Your task to perform on an android device: turn on location history Image 0: 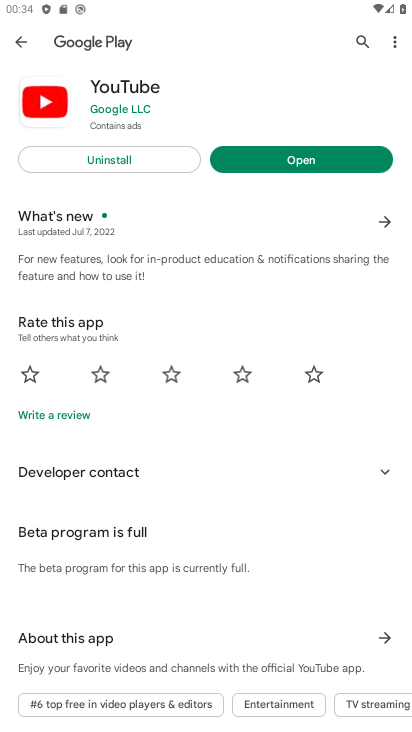
Step 0: press home button
Your task to perform on an android device: turn on location history Image 1: 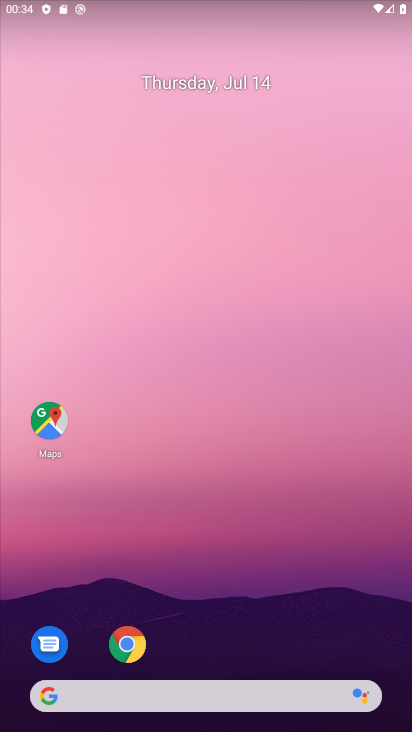
Step 1: drag from (270, 709) to (251, 191)
Your task to perform on an android device: turn on location history Image 2: 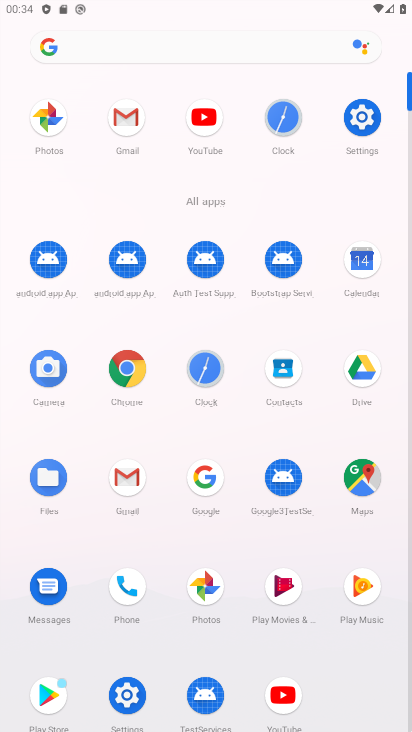
Step 2: click (357, 128)
Your task to perform on an android device: turn on location history Image 3: 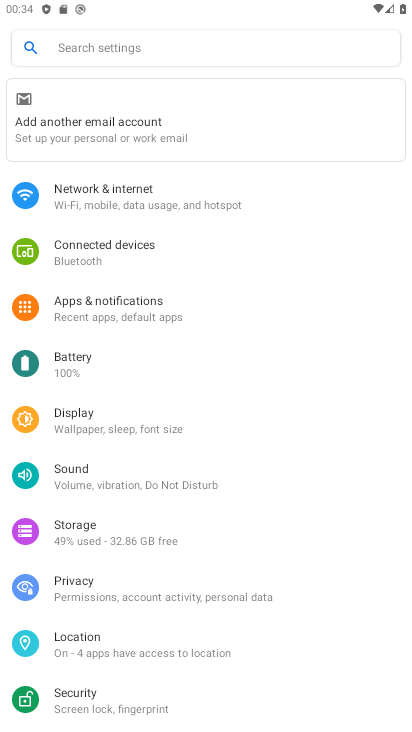
Step 3: click (111, 638)
Your task to perform on an android device: turn on location history Image 4: 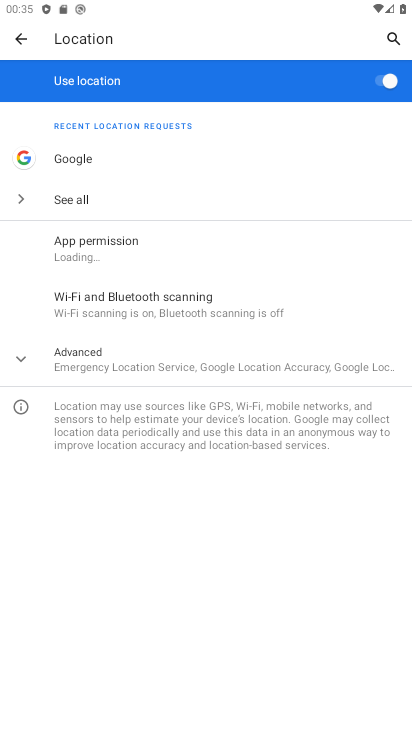
Step 4: click (25, 357)
Your task to perform on an android device: turn on location history Image 5: 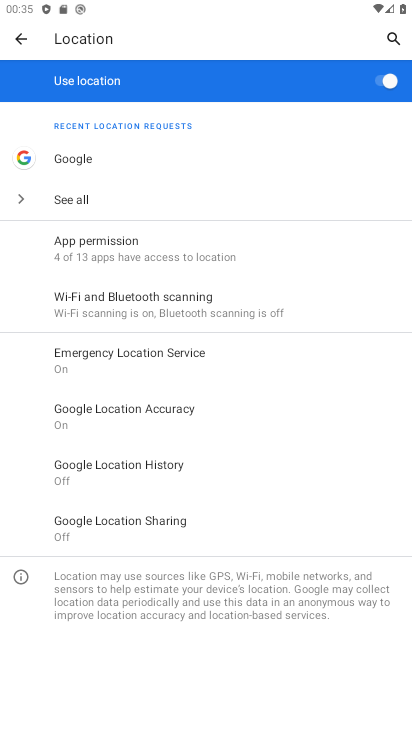
Step 5: click (103, 474)
Your task to perform on an android device: turn on location history Image 6: 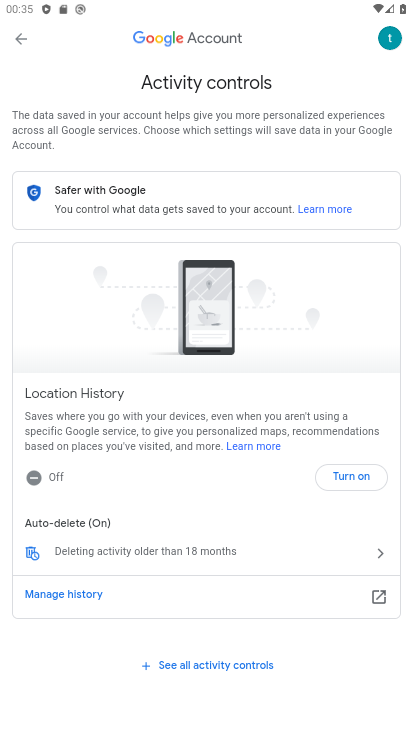
Step 6: task complete